Your task to perform on an android device: Open Google Image 0: 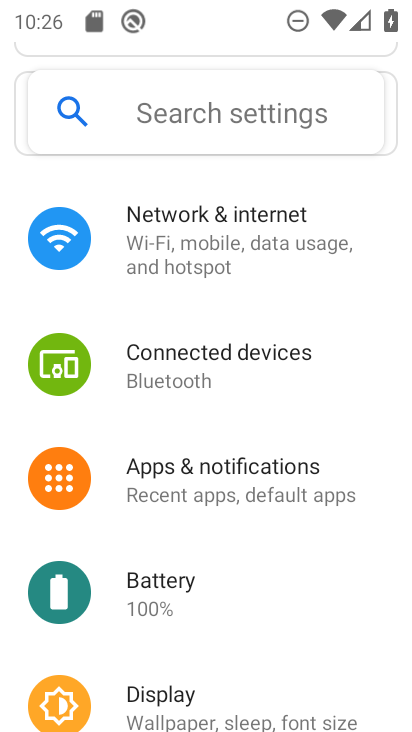
Step 0: press home button
Your task to perform on an android device: Open Google Image 1: 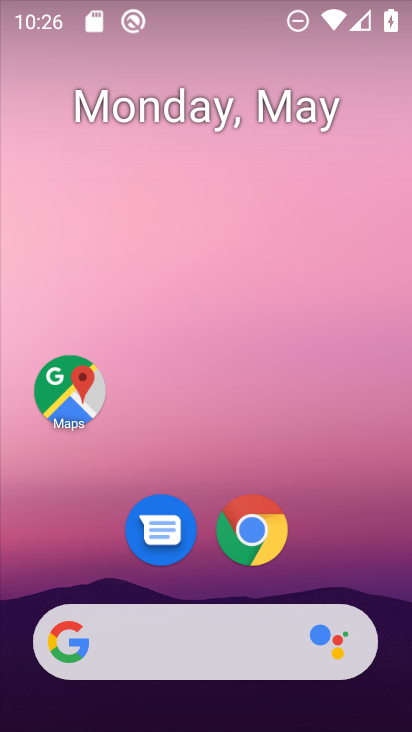
Step 1: drag from (130, 633) to (118, 187)
Your task to perform on an android device: Open Google Image 2: 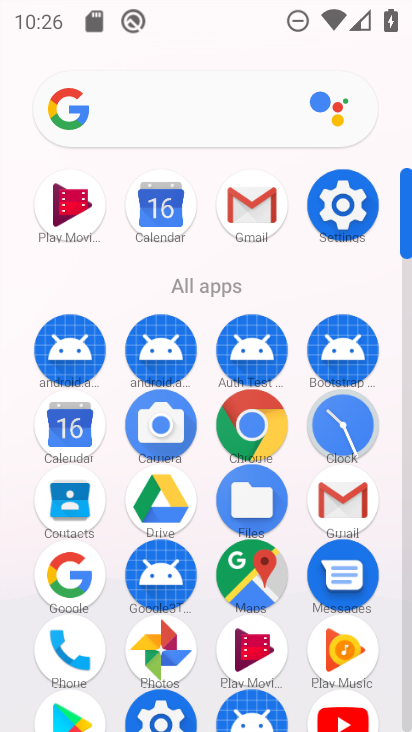
Step 2: click (71, 580)
Your task to perform on an android device: Open Google Image 3: 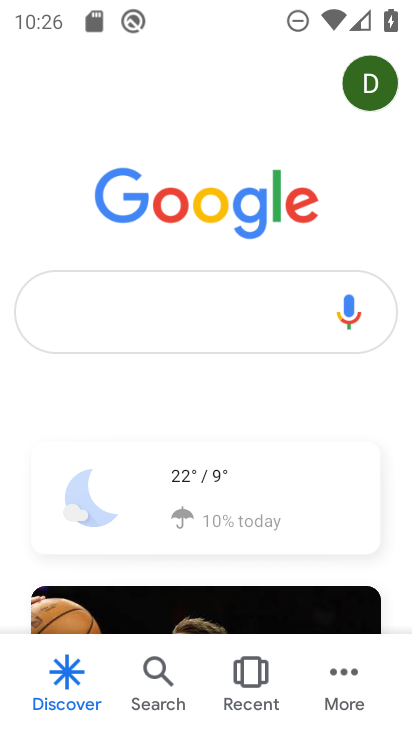
Step 3: task complete